Your task to perform on an android device: Open a new Chrome private window Image 0: 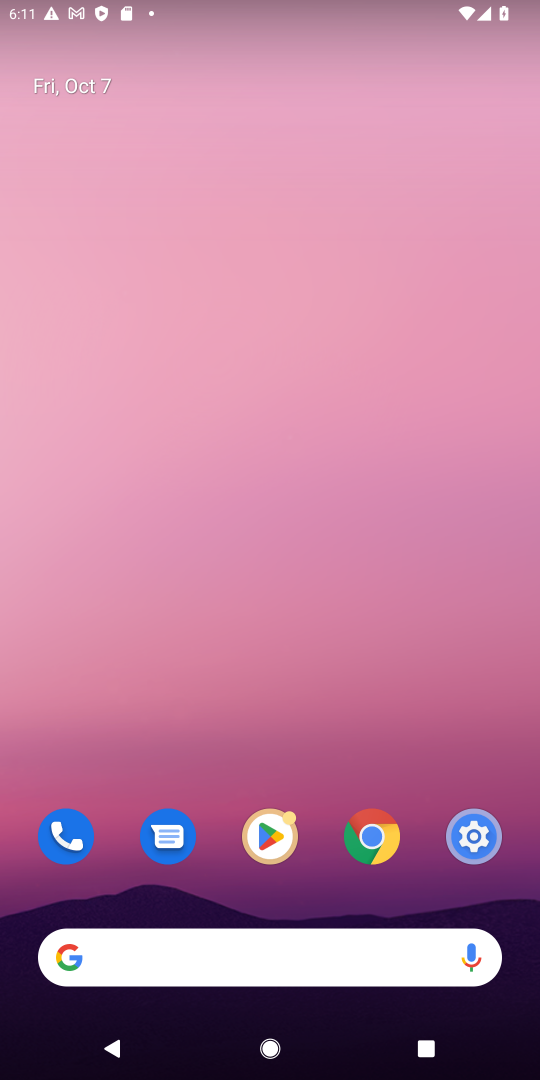
Step 0: click (382, 838)
Your task to perform on an android device: Open a new Chrome private window Image 1: 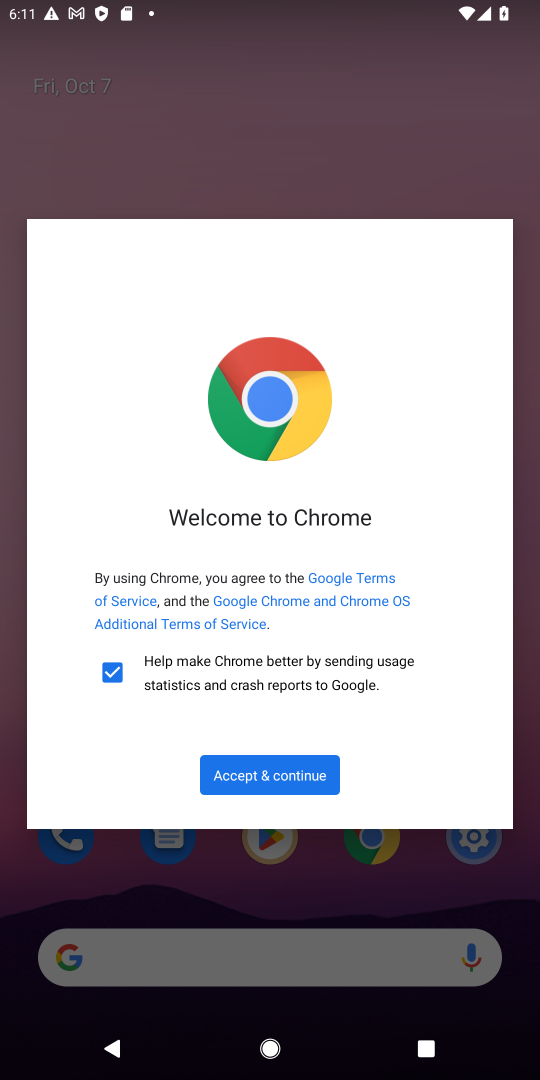
Step 1: click (224, 776)
Your task to perform on an android device: Open a new Chrome private window Image 2: 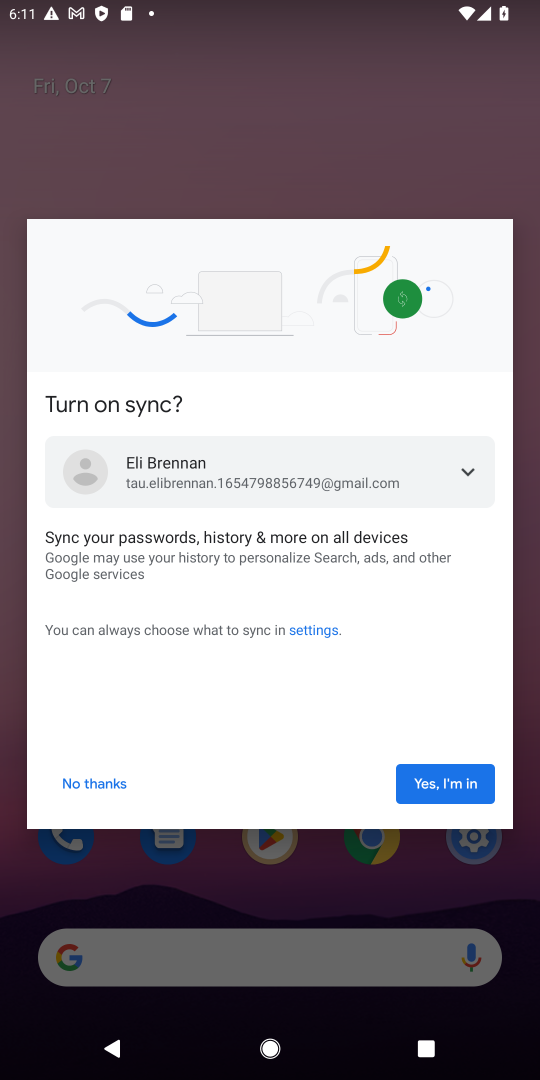
Step 2: click (420, 775)
Your task to perform on an android device: Open a new Chrome private window Image 3: 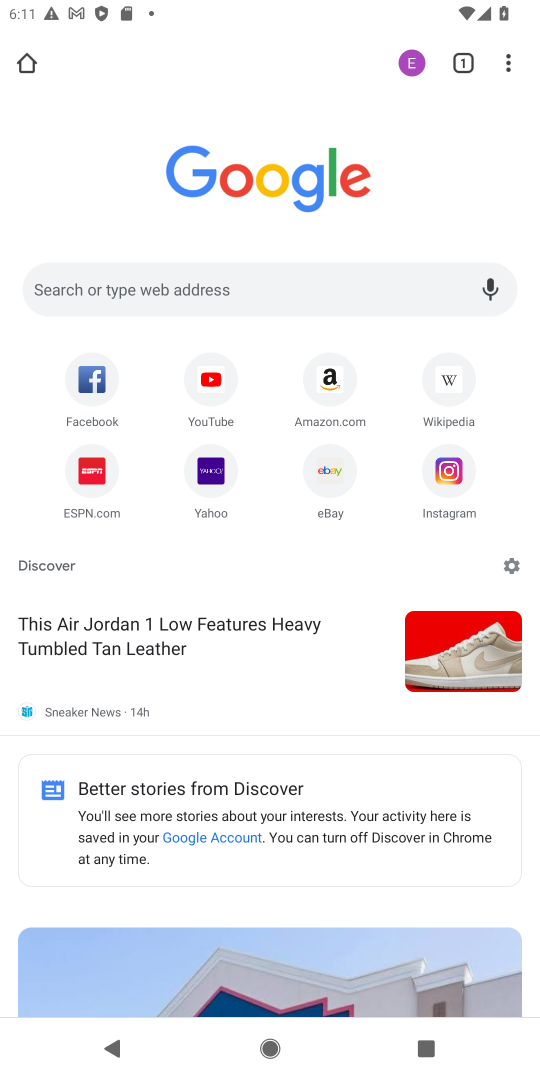
Step 3: click (468, 64)
Your task to perform on an android device: Open a new Chrome private window Image 4: 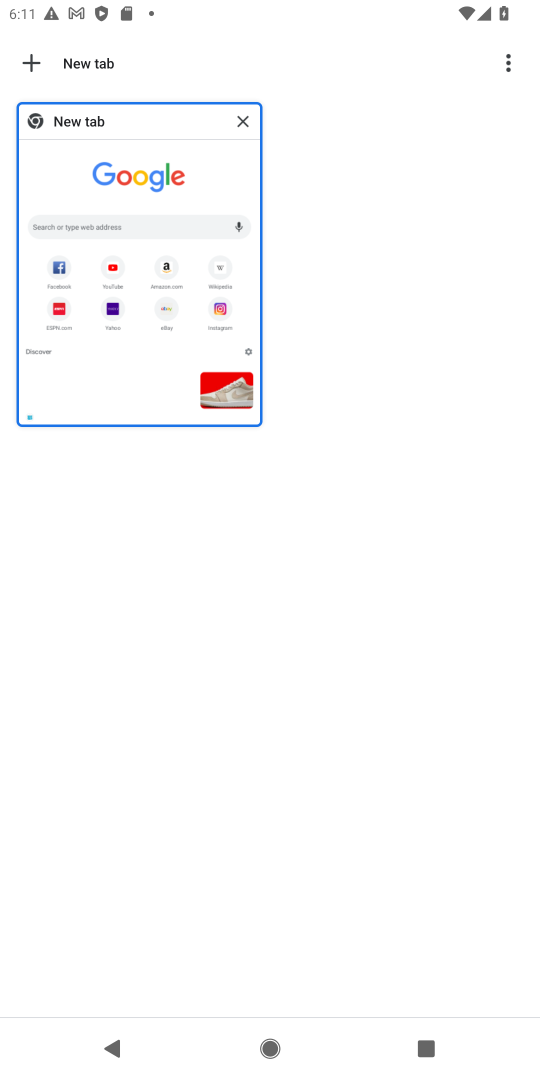
Step 4: click (44, 78)
Your task to perform on an android device: Open a new Chrome private window Image 5: 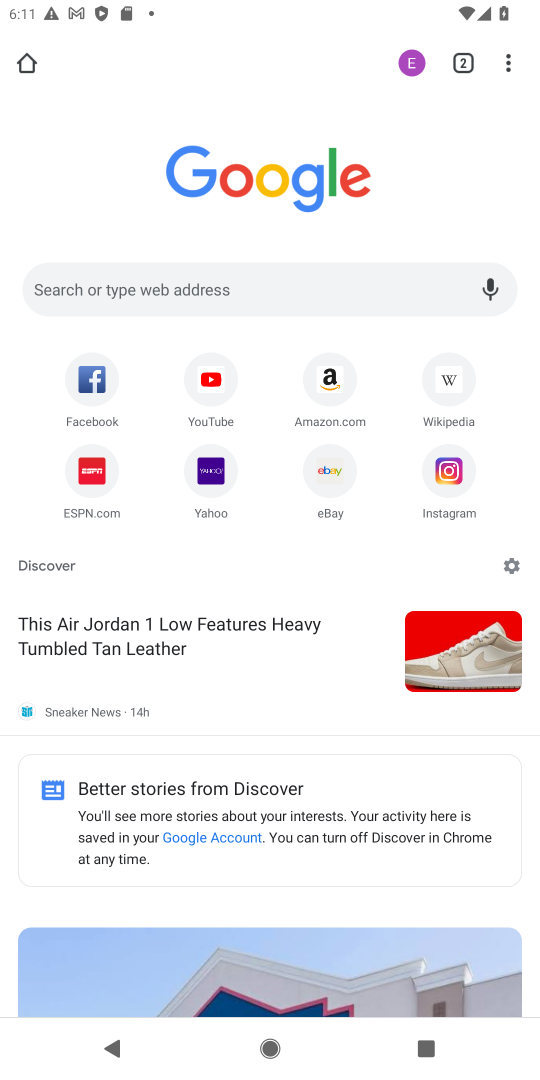
Step 5: click (467, 62)
Your task to perform on an android device: Open a new Chrome private window Image 6: 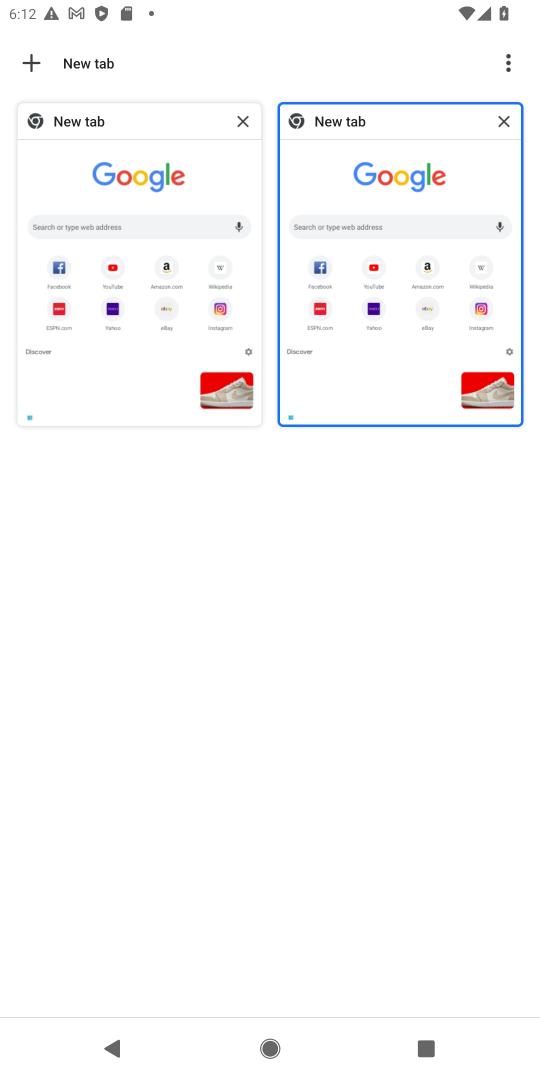
Step 6: click (514, 64)
Your task to perform on an android device: Open a new Chrome private window Image 7: 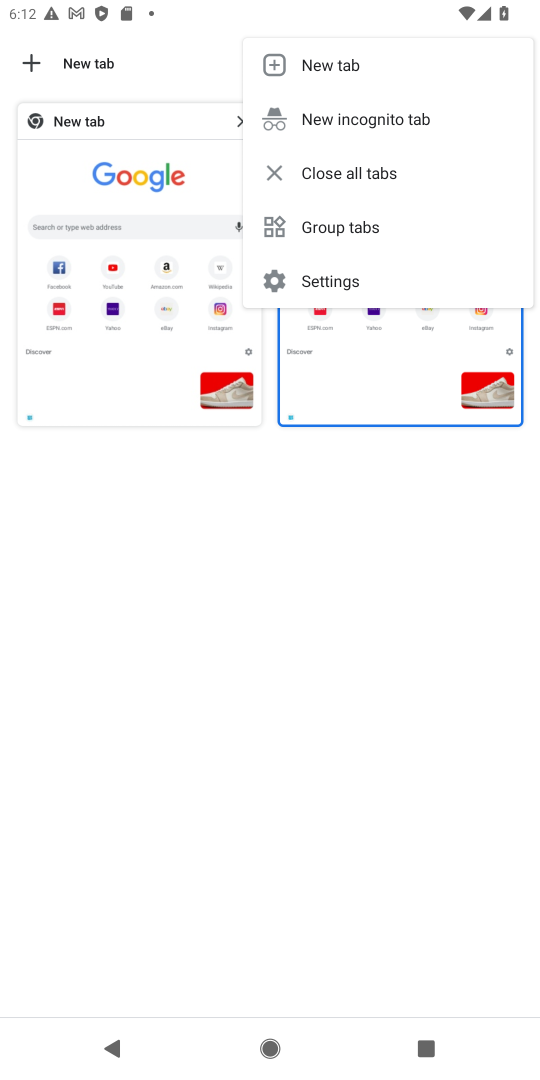
Step 7: click (370, 127)
Your task to perform on an android device: Open a new Chrome private window Image 8: 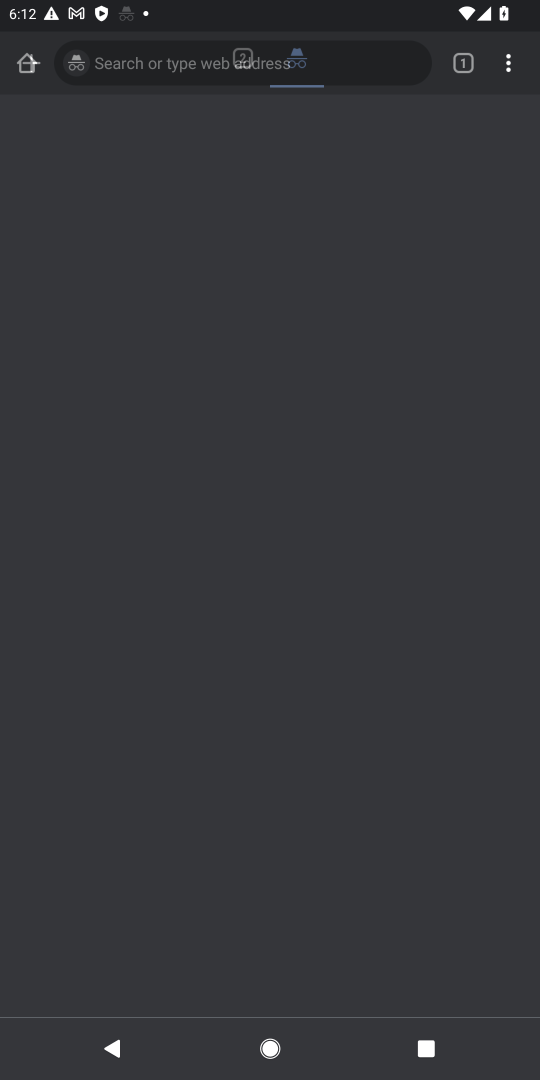
Step 8: task complete